Your task to perform on an android device: toggle data saver in the chrome app Image 0: 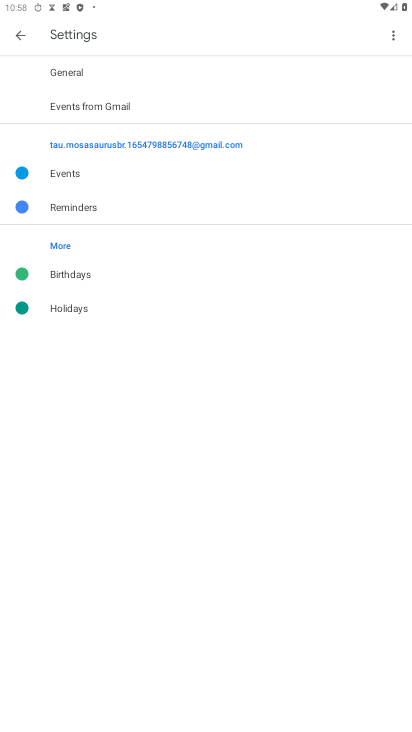
Step 0: press home button
Your task to perform on an android device: toggle data saver in the chrome app Image 1: 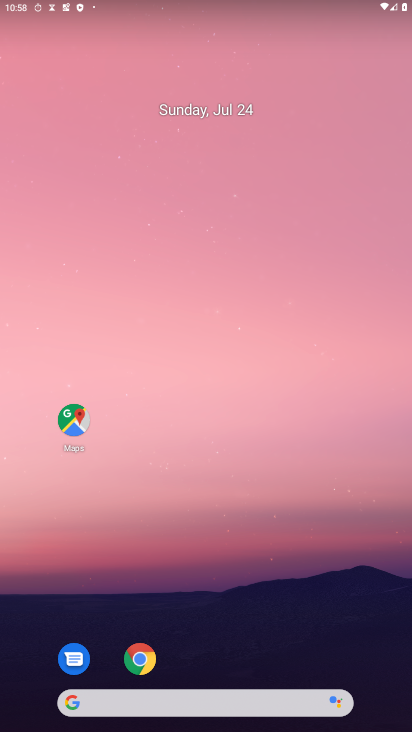
Step 1: click (142, 660)
Your task to perform on an android device: toggle data saver in the chrome app Image 2: 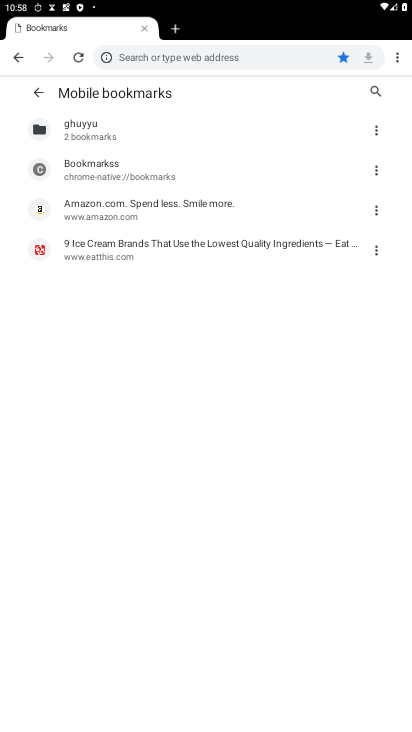
Step 2: click (397, 58)
Your task to perform on an android device: toggle data saver in the chrome app Image 3: 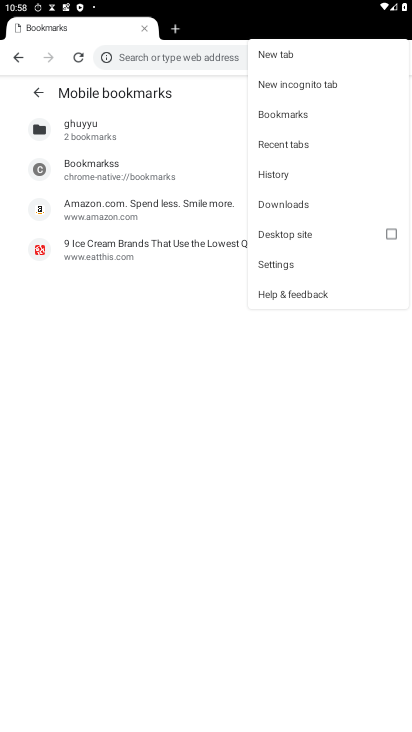
Step 3: click (280, 266)
Your task to perform on an android device: toggle data saver in the chrome app Image 4: 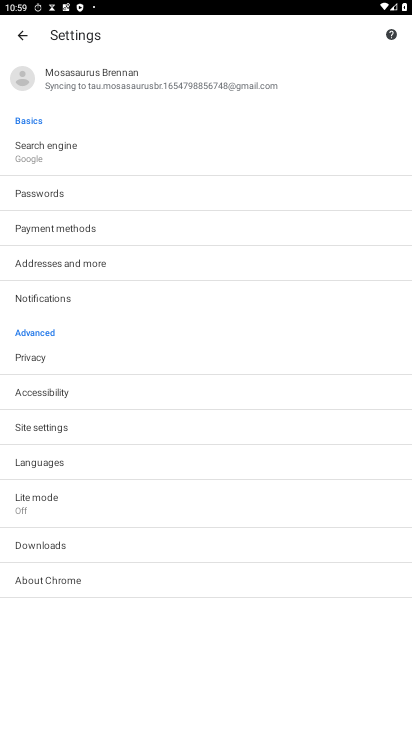
Step 4: click (45, 497)
Your task to perform on an android device: toggle data saver in the chrome app Image 5: 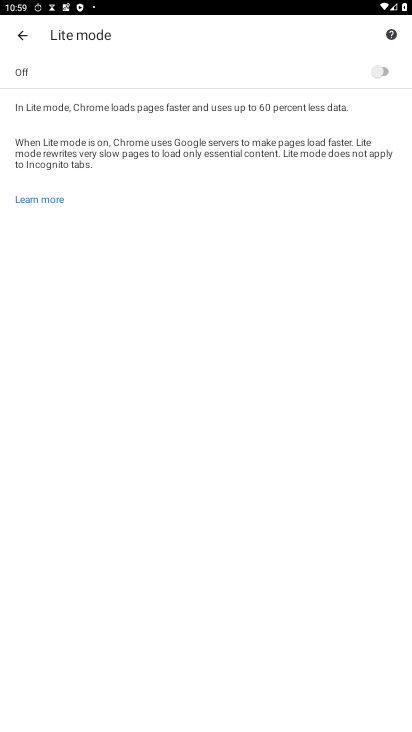
Step 5: click (380, 73)
Your task to perform on an android device: toggle data saver in the chrome app Image 6: 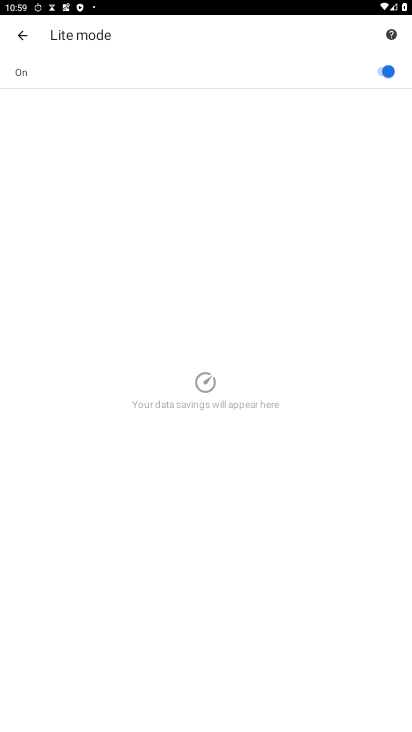
Step 6: task complete